Your task to perform on an android device: Go to calendar. Show me events next week Image 0: 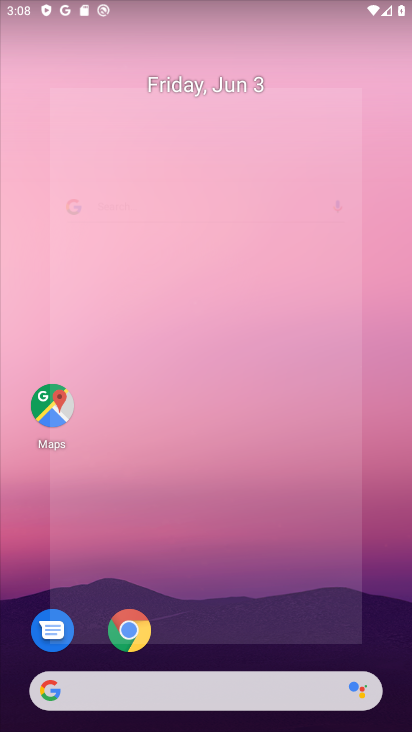
Step 0: click (184, 298)
Your task to perform on an android device: Go to calendar. Show me events next week Image 1: 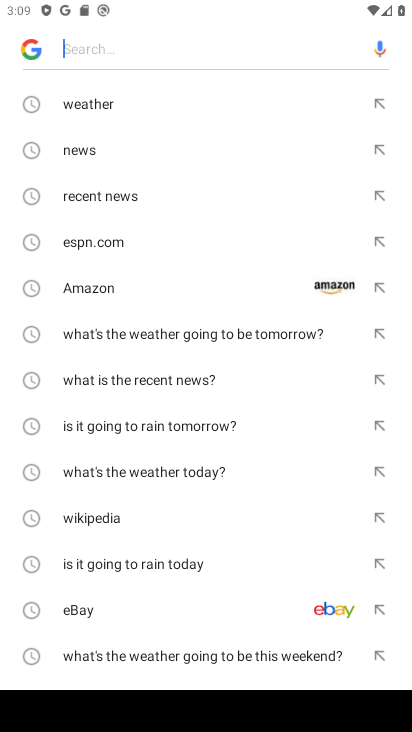
Step 1: press back button
Your task to perform on an android device: Go to calendar. Show me events next week Image 2: 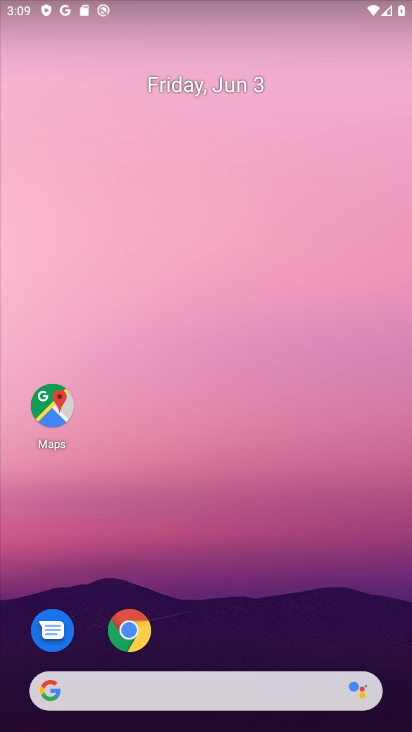
Step 2: drag from (221, 633) to (176, 184)
Your task to perform on an android device: Go to calendar. Show me events next week Image 3: 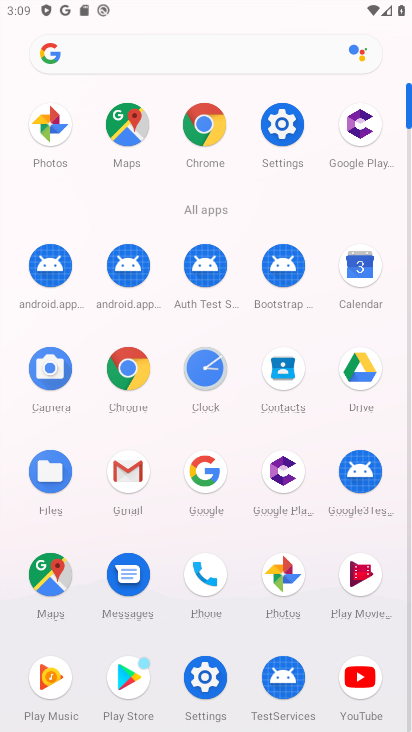
Step 3: click (351, 274)
Your task to perform on an android device: Go to calendar. Show me events next week Image 4: 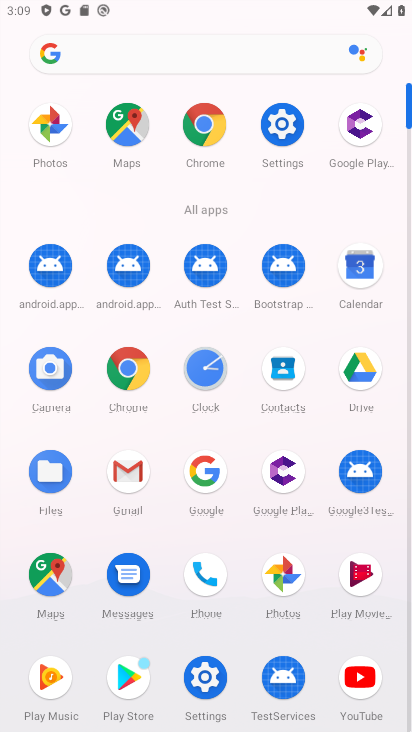
Step 4: click (351, 274)
Your task to perform on an android device: Go to calendar. Show me events next week Image 5: 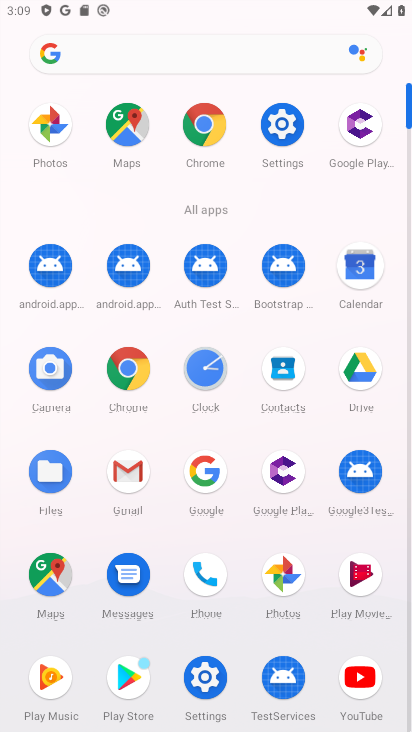
Step 5: click (353, 273)
Your task to perform on an android device: Go to calendar. Show me events next week Image 6: 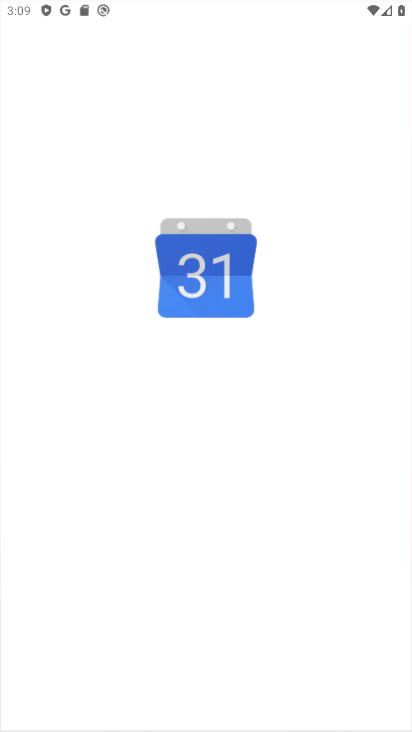
Step 6: click (358, 273)
Your task to perform on an android device: Go to calendar. Show me events next week Image 7: 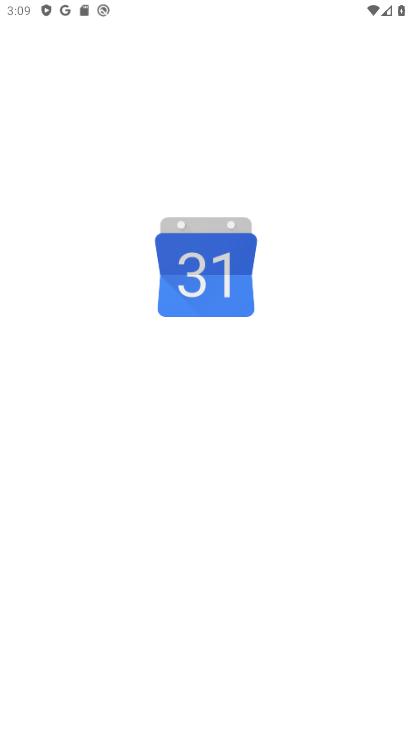
Step 7: click (358, 273)
Your task to perform on an android device: Go to calendar. Show me events next week Image 8: 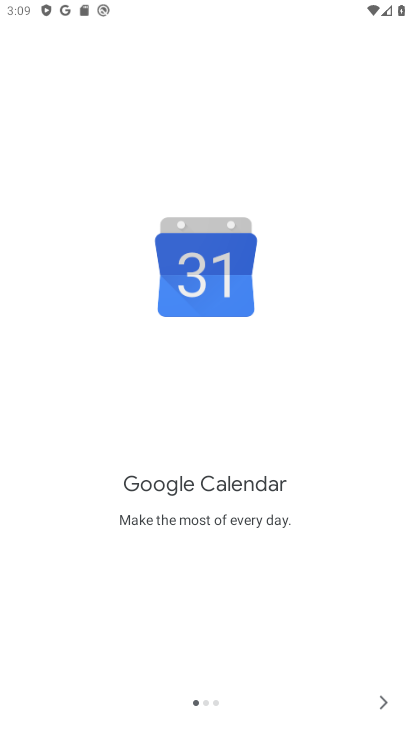
Step 8: click (381, 700)
Your task to perform on an android device: Go to calendar. Show me events next week Image 9: 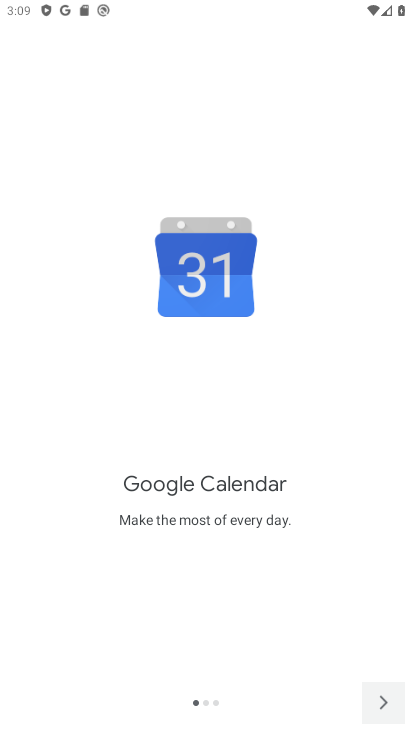
Step 9: click (376, 705)
Your task to perform on an android device: Go to calendar. Show me events next week Image 10: 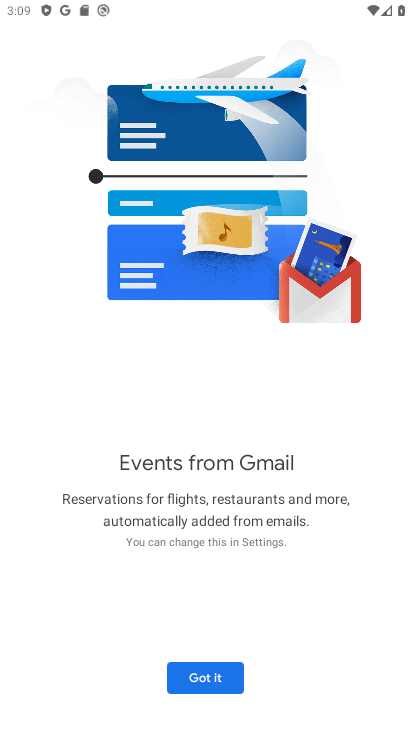
Step 10: click (206, 676)
Your task to perform on an android device: Go to calendar. Show me events next week Image 11: 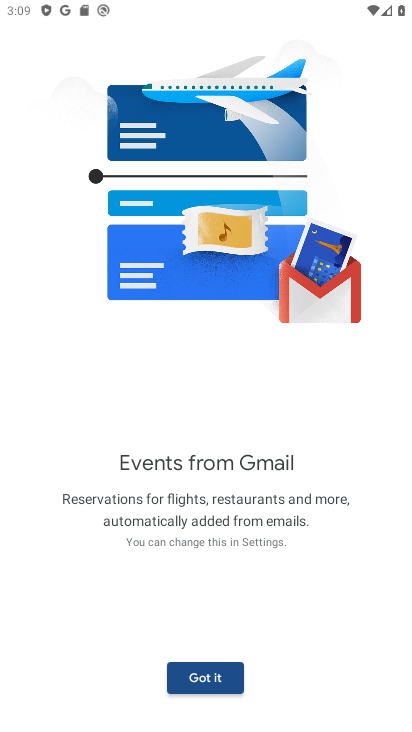
Step 11: click (205, 685)
Your task to perform on an android device: Go to calendar. Show me events next week Image 12: 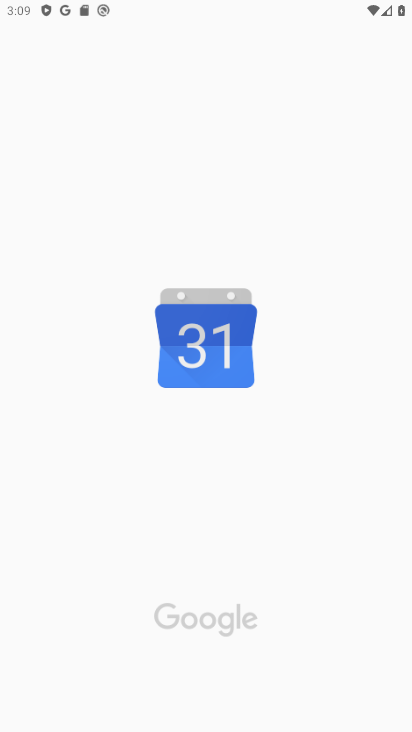
Step 12: click (207, 670)
Your task to perform on an android device: Go to calendar. Show me events next week Image 13: 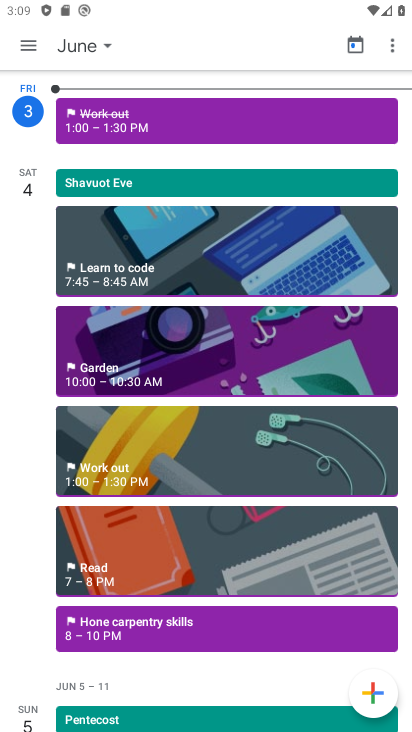
Step 13: click (103, 43)
Your task to perform on an android device: Go to calendar. Show me events next week Image 14: 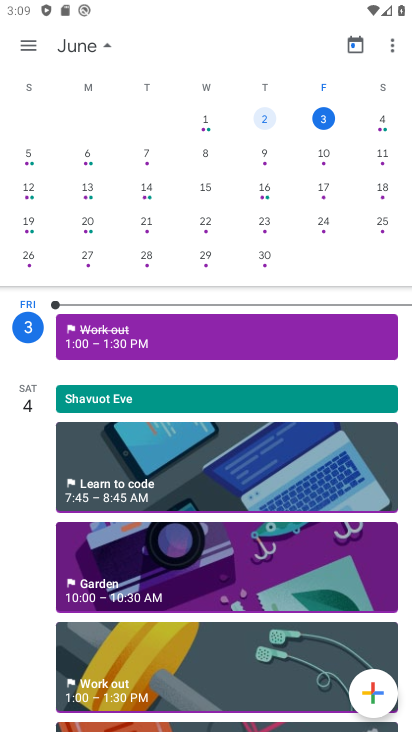
Step 14: drag from (105, 502) to (37, 105)
Your task to perform on an android device: Go to calendar. Show me events next week Image 15: 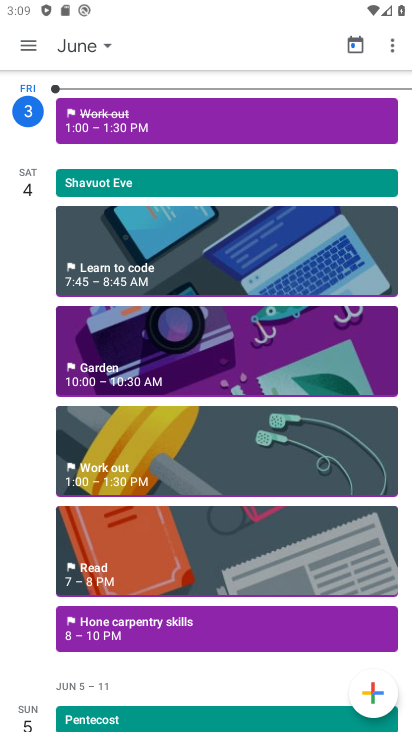
Step 15: drag from (102, 595) to (88, 233)
Your task to perform on an android device: Go to calendar. Show me events next week Image 16: 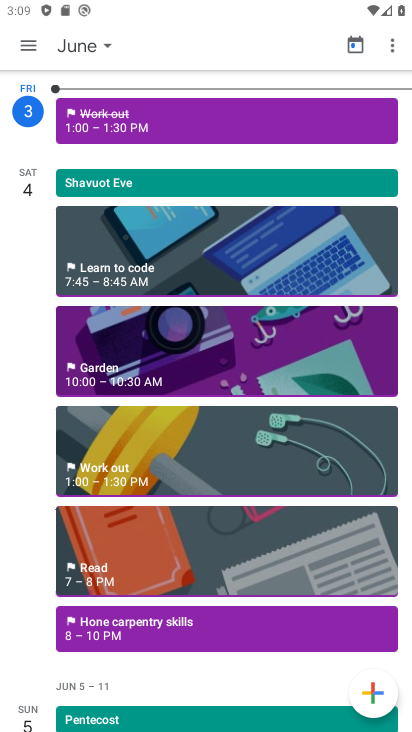
Step 16: drag from (207, 531) to (199, 221)
Your task to perform on an android device: Go to calendar. Show me events next week Image 17: 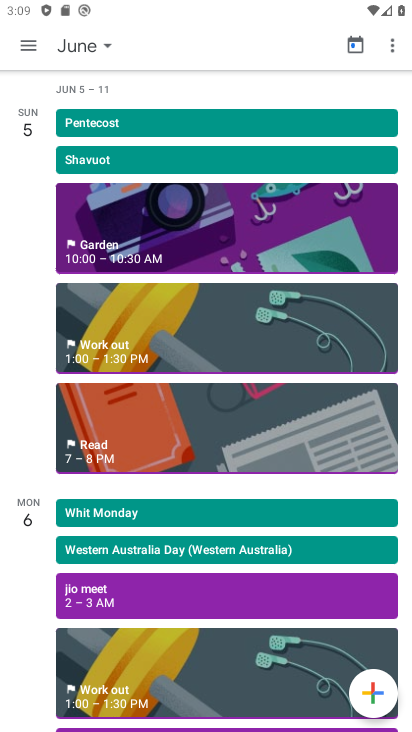
Step 17: drag from (184, 530) to (166, 242)
Your task to perform on an android device: Go to calendar. Show me events next week Image 18: 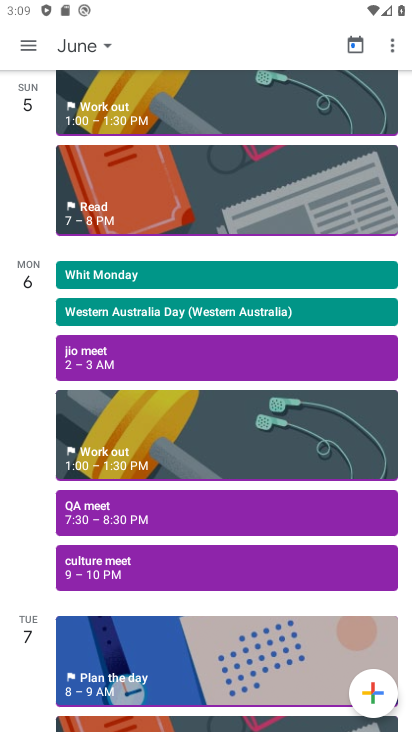
Step 18: drag from (171, 498) to (149, 198)
Your task to perform on an android device: Go to calendar. Show me events next week Image 19: 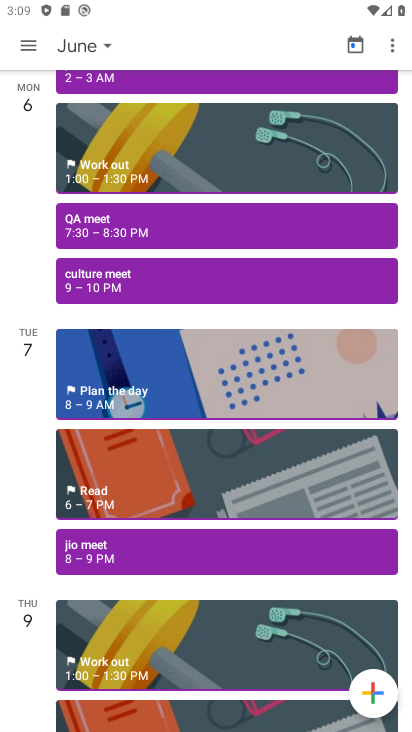
Step 19: click (129, 621)
Your task to perform on an android device: Go to calendar. Show me events next week Image 20: 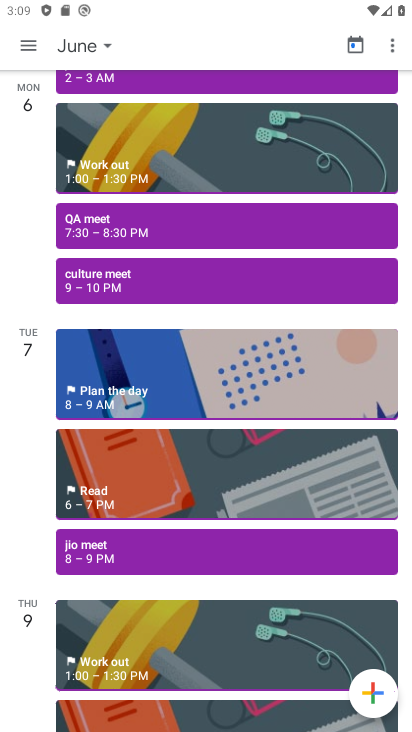
Step 20: click (134, 636)
Your task to perform on an android device: Go to calendar. Show me events next week Image 21: 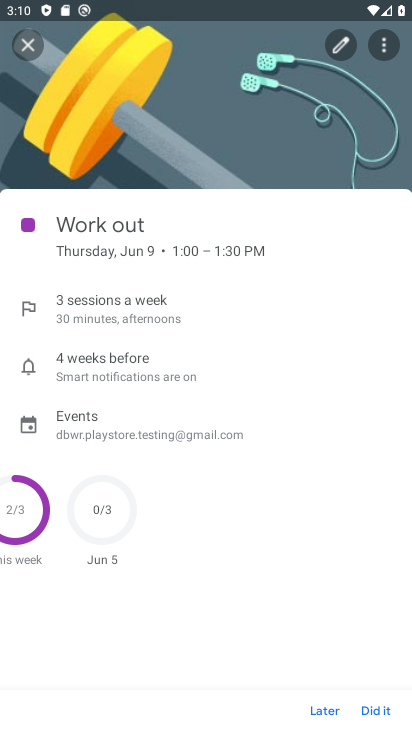
Step 21: click (136, 649)
Your task to perform on an android device: Go to calendar. Show me events next week Image 22: 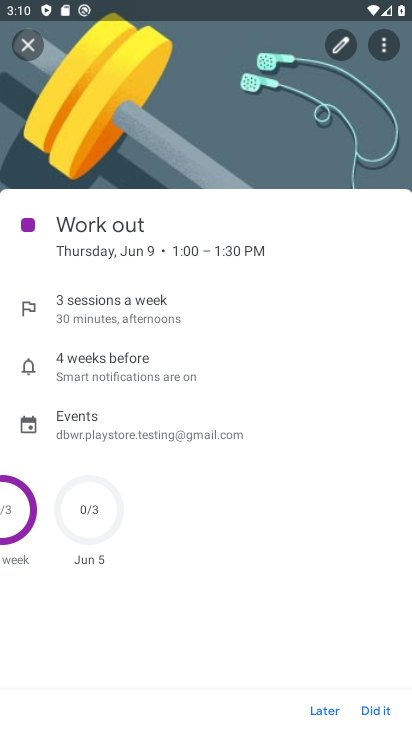
Step 22: task complete